Your task to perform on an android device: change notification settings in the gmail app Image 0: 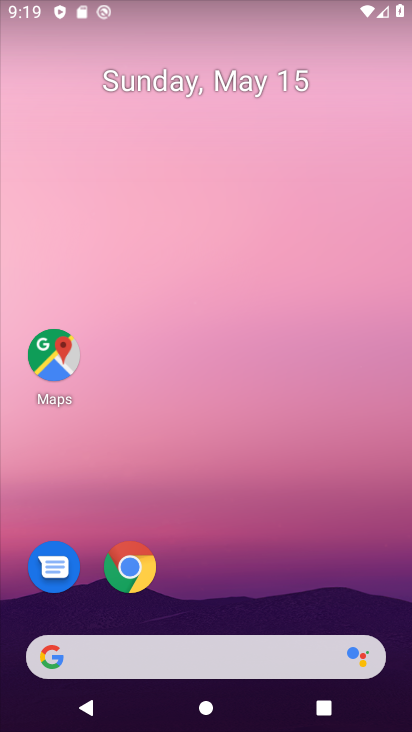
Step 0: drag from (307, 593) to (254, 41)
Your task to perform on an android device: change notification settings in the gmail app Image 1: 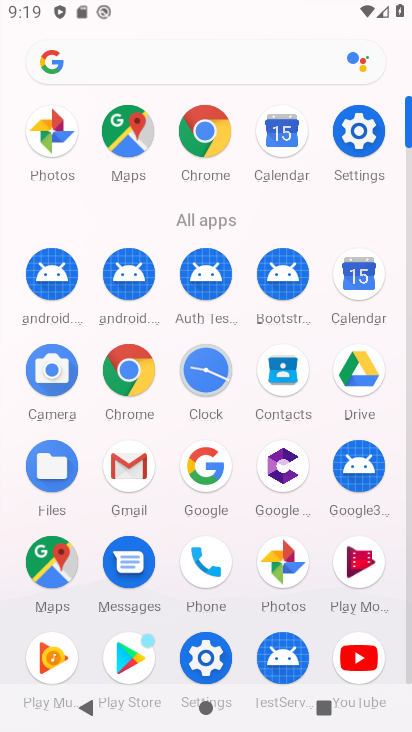
Step 1: click (123, 480)
Your task to perform on an android device: change notification settings in the gmail app Image 2: 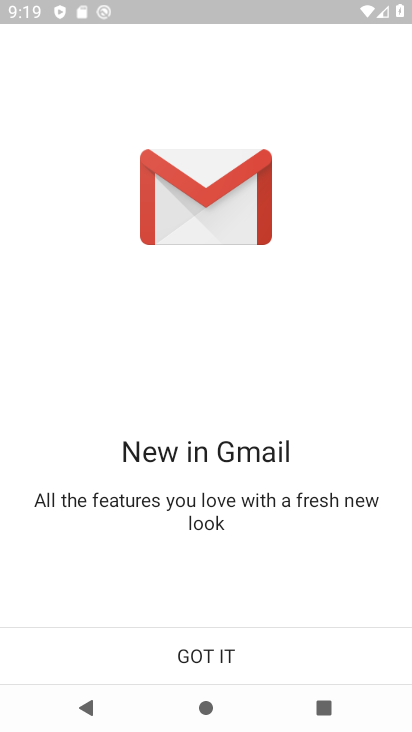
Step 2: click (192, 639)
Your task to perform on an android device: change notification settings in the gmail app Image 3: 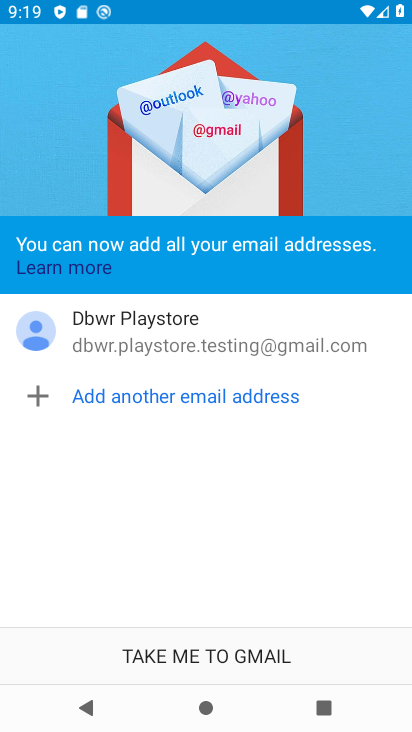
Step 3: click (174, 652)
Your task to perform on an android device: change notification settings in the gmail app Image 4: 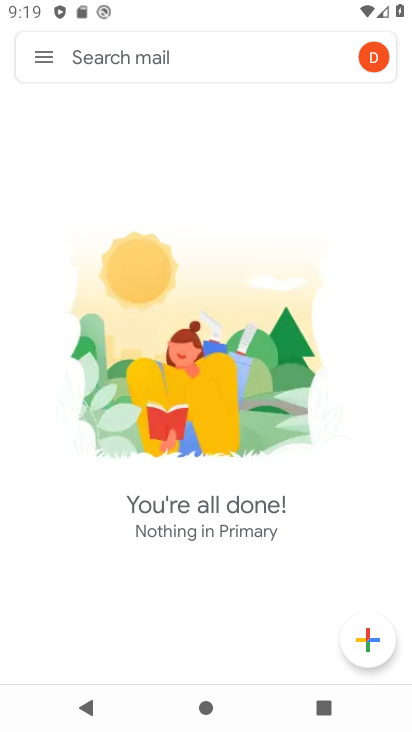
Step 4: click (36, 45)
Your task to perform on an android device: change notification settings in the gmail app Image 5: 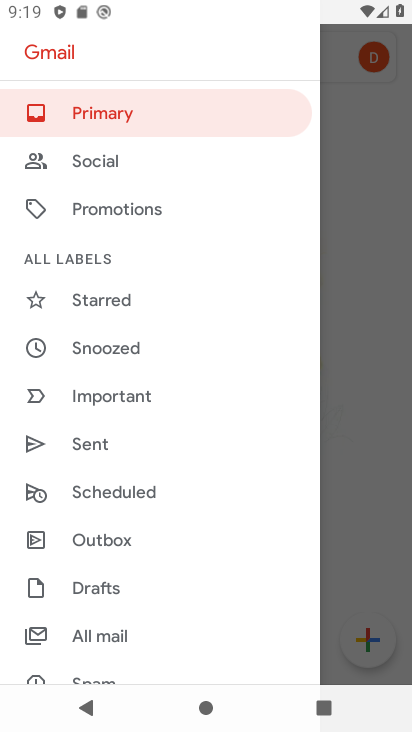
Step 5: drag from (233, 641) to (201, 186)
Your task to perform on an android device: change notification settings in the gmail app Image 6: 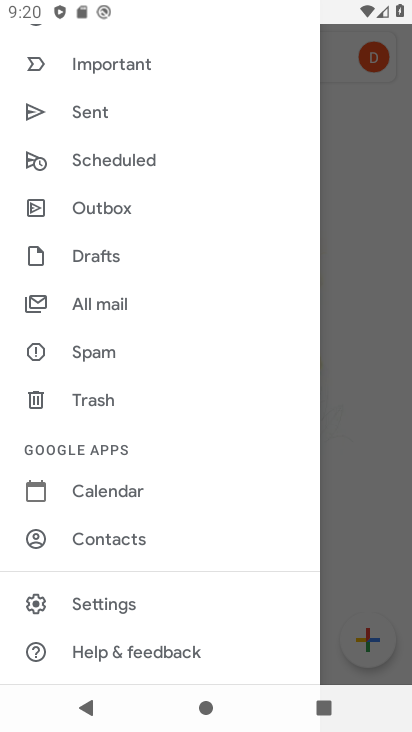
Step 6: click (178, 596)
Your task to perform on an android device: change notification settings in the gmail app Image 7: 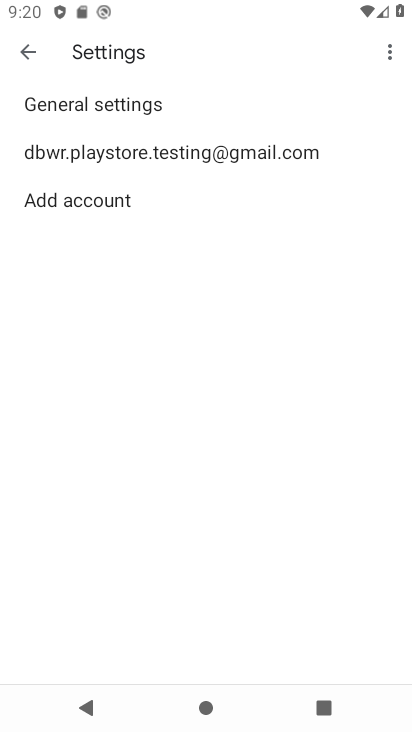
Step 7: click (182, 160)
Your task to perform on an android device: change notification settings in the gmail app Image 8: 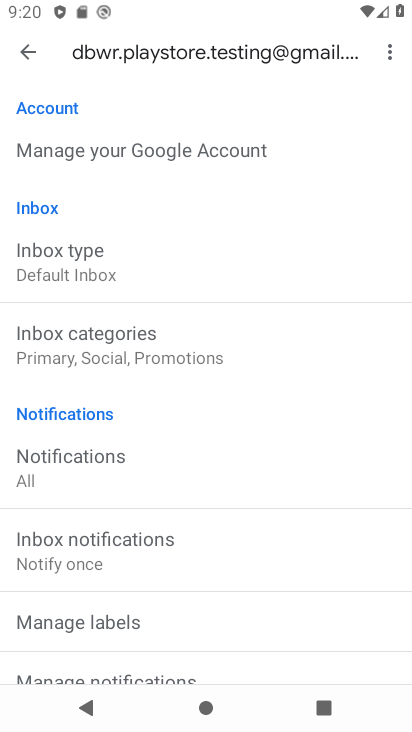
Step 8: click (127, 670)
Your task to perform on an android device: change notification settings in the gmail app Image 9: 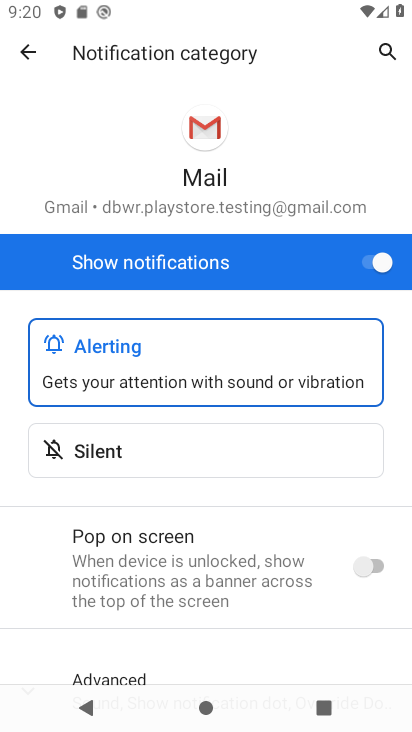
Step 9: click (331, 447)
Your task to perform on an android device: change notification settings in the gmail app Image 10: 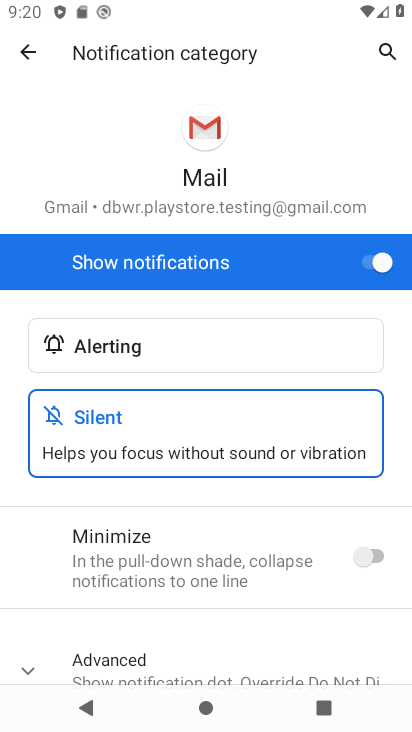
Step 10: task complete